Your task to perform on an android device: Open Google Chrome and click the shortcut for Amazon.com Image 0: 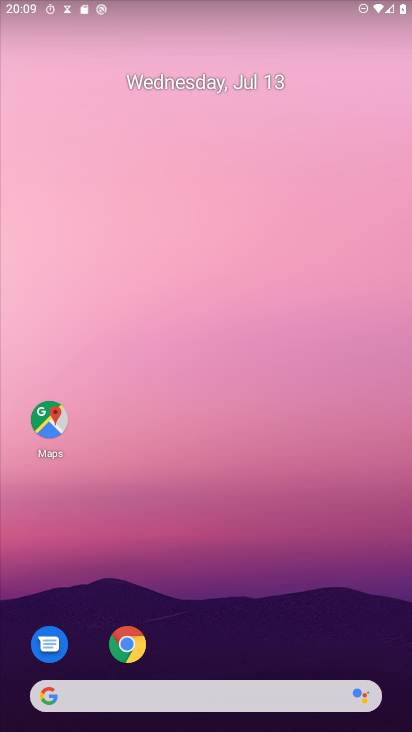
Step 0: click (130, 649)
Your task to perform on an android device: Open Google Chrome and click the shortcut for Amazon.com Image 1: 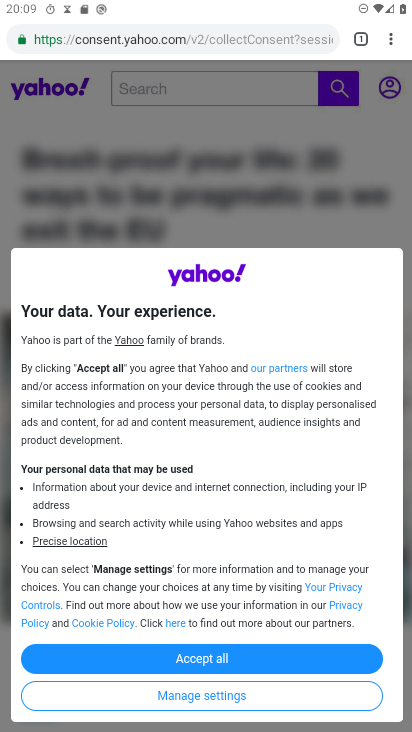
Step 1: click (403, 31)
Your task to perform on an android device: Open Google Chrome and click the shortcut for Amazon.com Image 2: 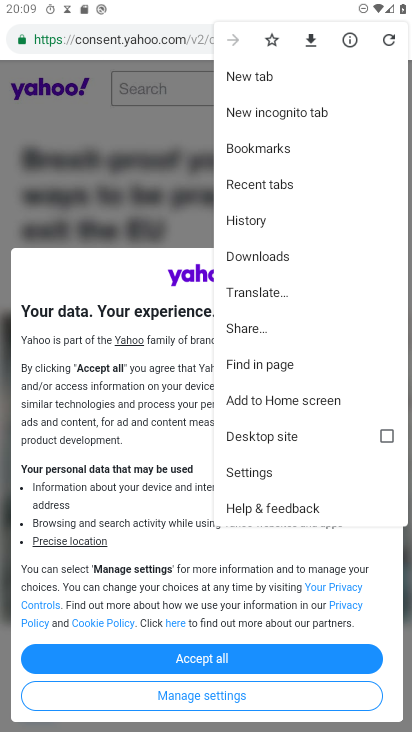
Step 2: click (318, 66)
Your task to perform on an android device: Open Google Chrome and click the shortcut for Amazon.com Image 3: 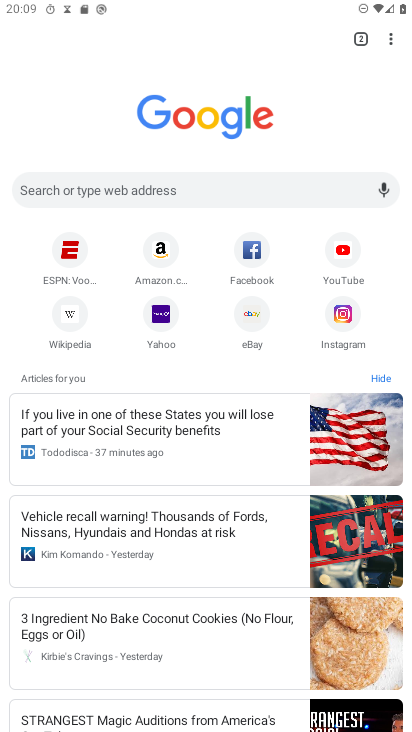
Step 3: click (164, 248)
Your task to perform on an android device: Open Google Chrome and click the shortcut for Amazon.com Image 4: 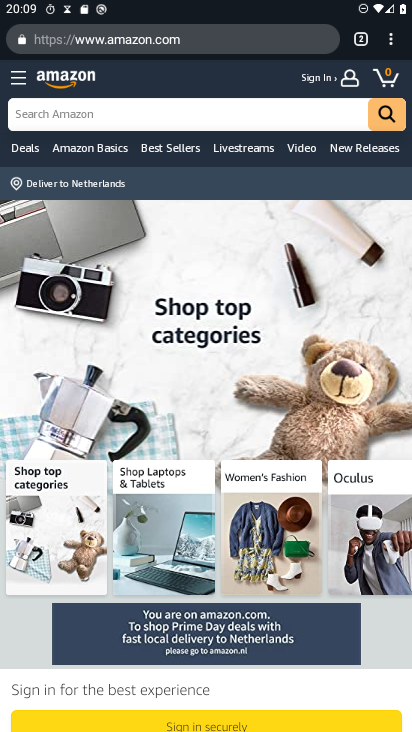
Step 4: task complete